Your task to perform on an android device: clear all cookies in the chrome app Image 0: 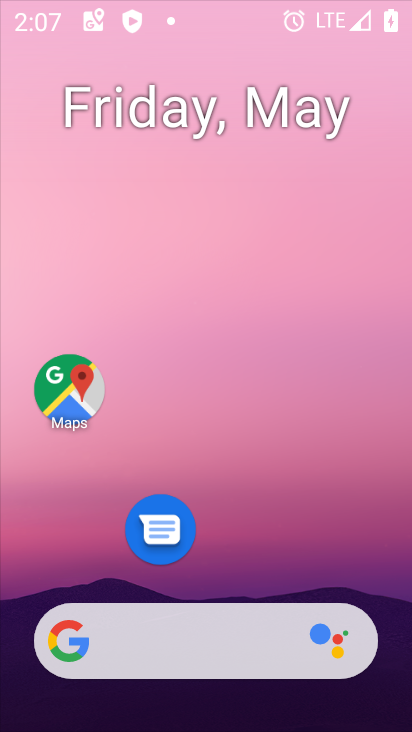
Step 0: drag from (392, 328) to (166, 726)
Your task to perform on an android device: clear all cookies in the chrome app Image 1: 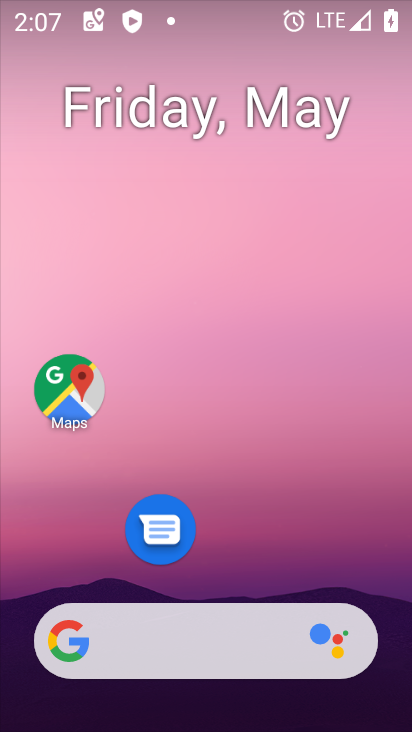
Step 1: drag from (193, 562) to (209, 186)
Your task to perform on an android device: clear all cookies in the chrome app Image 2: 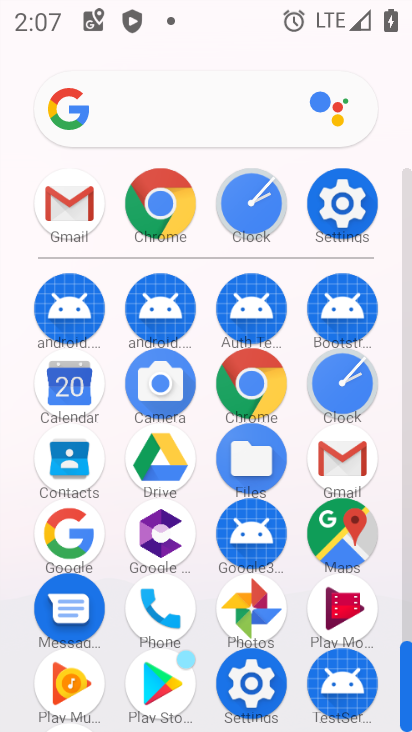
Step 2: drag from (217, 653) to (240, 6)
Your task to perform on an android device: clear all cookies in the chrome app Image 3: 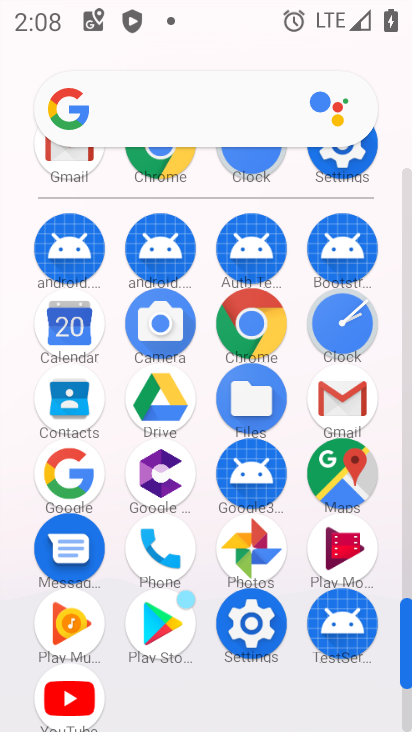
Step 3: click (252, 332)
Your task to perform on an android device: clear all cookies in the chrome app Image 4: 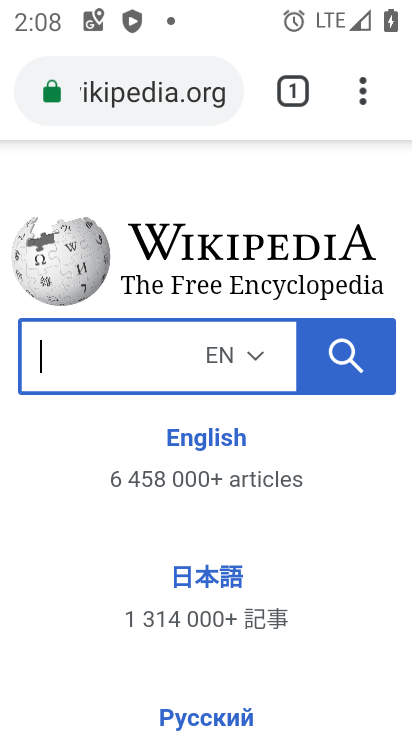
Step 4: click (361, 84)
Your task to perform on an android device: clear all cookies in the chrome app Image 5: 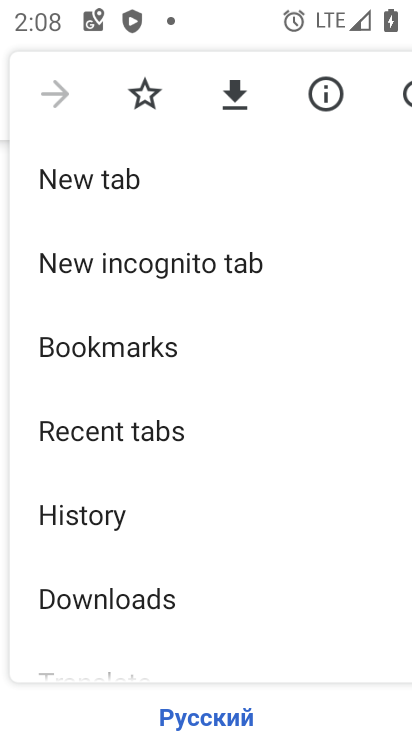
Step 5: drag from (121, 641) to (197, 152)
Your task to perform on an android device: clear all cookies in the chrome app Image 6: 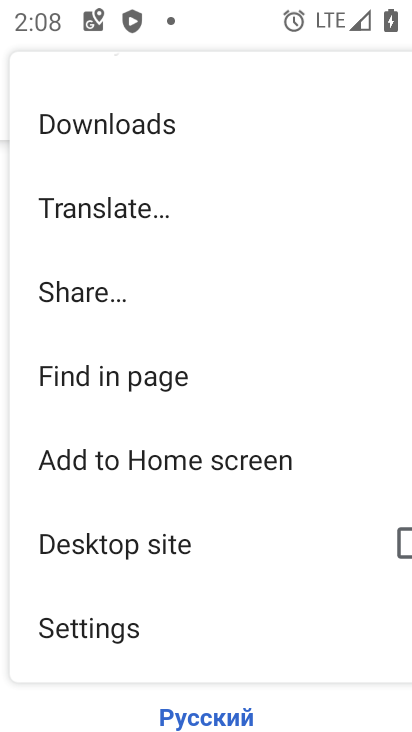
Step 6: drag from (165, 635) to (240, 300)
Your task to perform on an android device: clear all cookies in the chrome app Image 7: 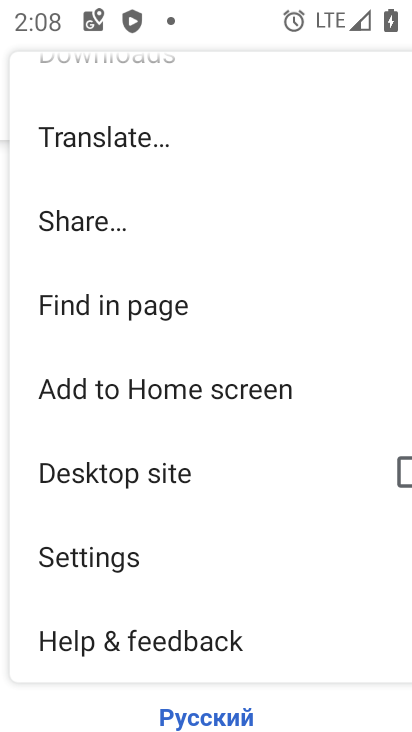
Step 7: drag from (183, 149) to (169, 608)
Your task to perform on an android device: clear all cookies in the chrome app Image 8: 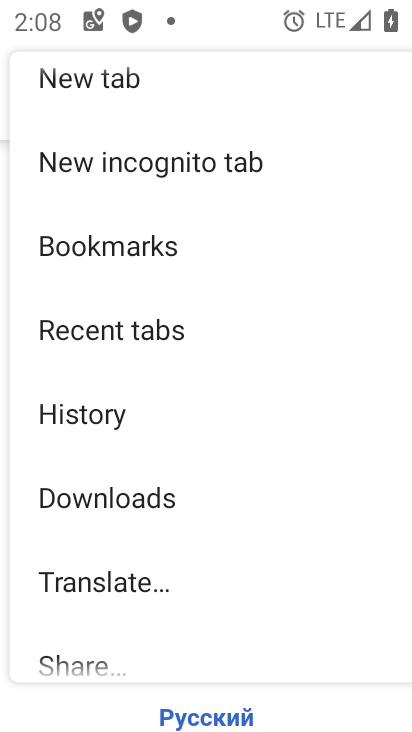
Step 8: drag from (180, 265) to (229, 666)
Your task to perform on an android device: clear all cookies in the chrome app Image 9: 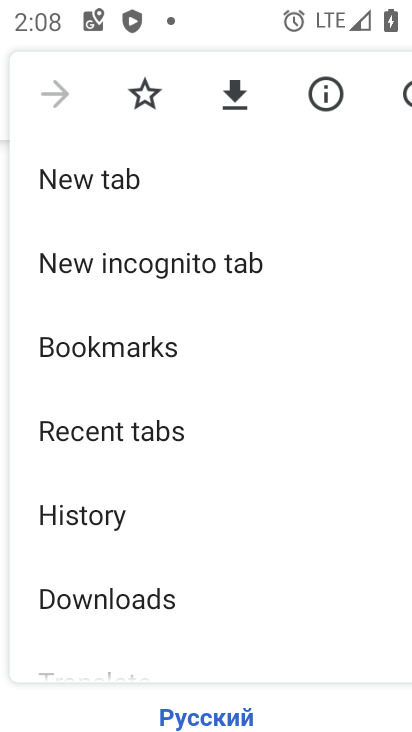
Step 9: drag from (137, 515) to (193, 209)
Your task to perform on an android device: clear all cookies in the chrome app Image 10: 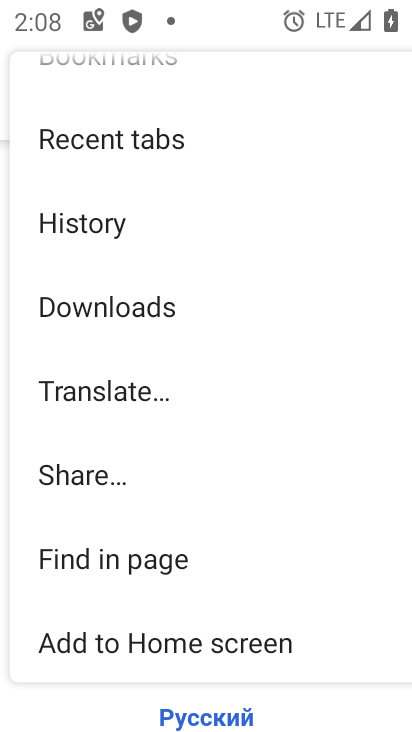
Step 10: click (111, 219)
Your task to perform on an android device: clear all cookies in the chrome app Image 11: 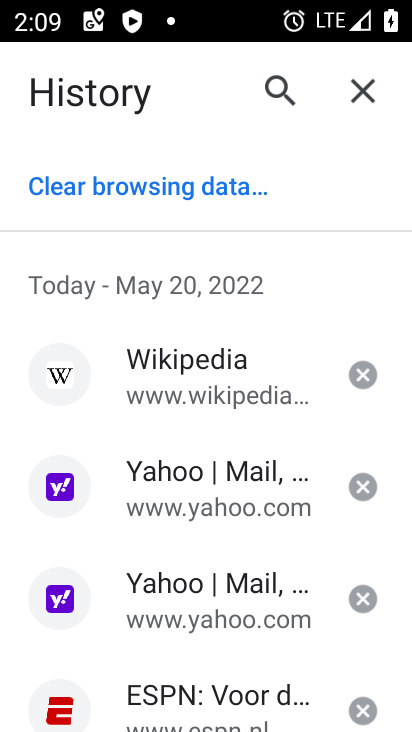
Step 11: click (100, 183)
Your task to perform on an android device: clear all cookies in the chrome app Image 12: 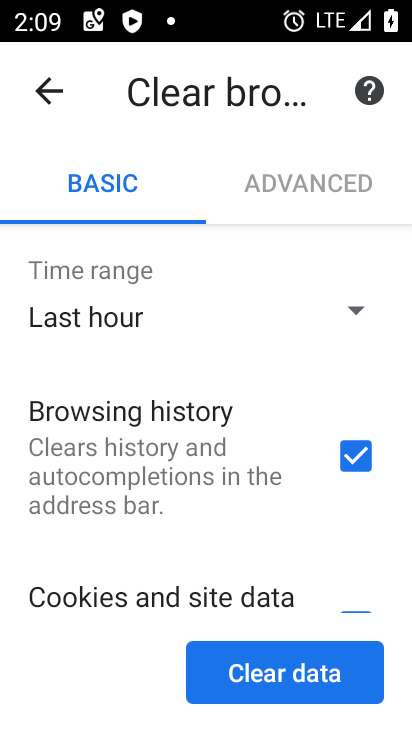
Step 12: drag from (275, 539) to (334, 198)
Your task to perform on an android device: clear all cookies in the chrome app Image 13: 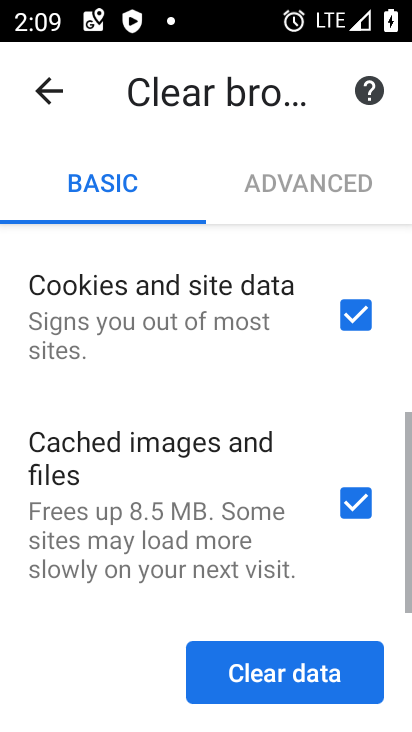
Step 13: drag from (265, 575) to (305, 233)
Your task to perform on an android device: clear all cookies in the chrome app Image 14: 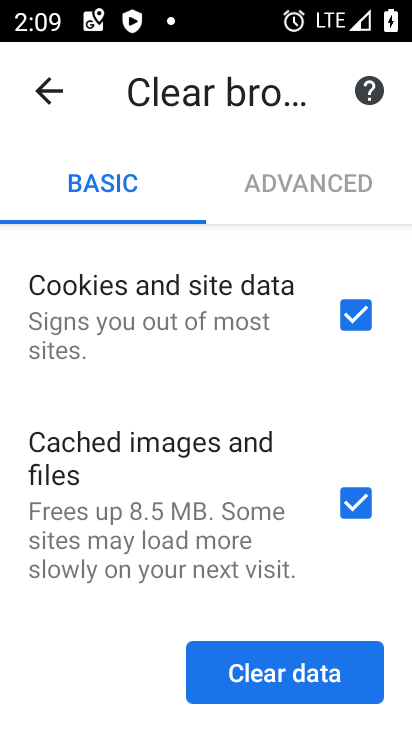
Step 14: drag from (202, 284) to (227, 630)
Your task to perform on an android device: clear all cookies in the chrome app Image 15: 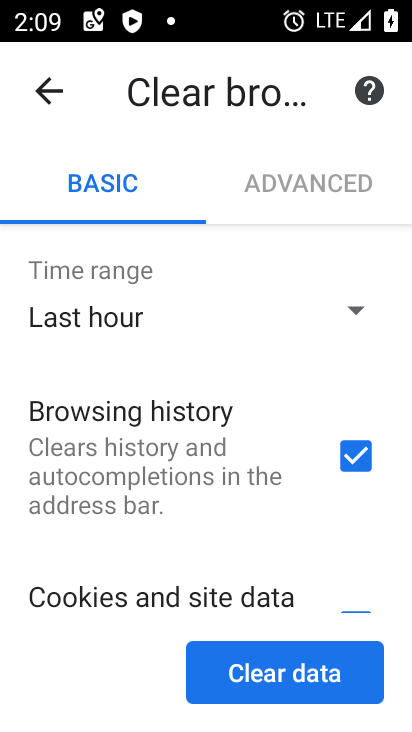
Step 15: drag from (236, 571) to (250, 326)
Your task to perform on an android device: clear all cookies in the chrome app Image 16: 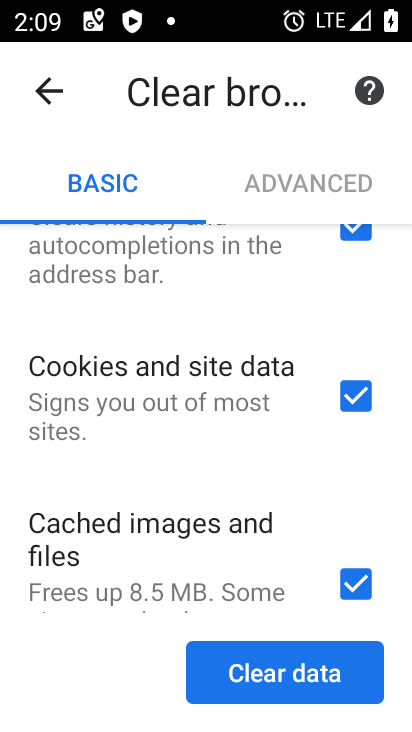
Step 16: drag from (258, 353) to (293, 731)
Your task to perform on an android device: clear all cookies in the chrome app Image 17: 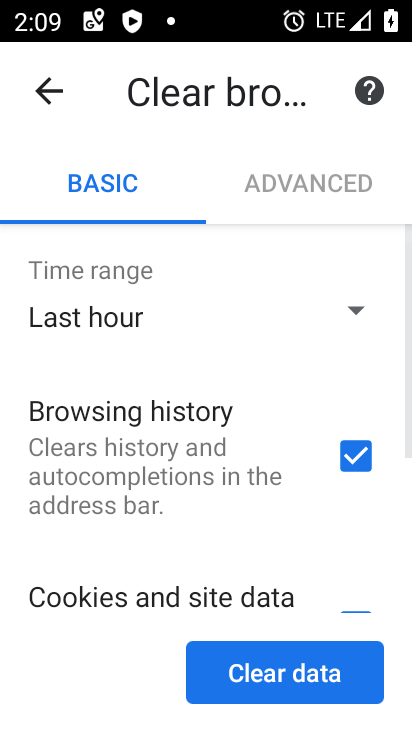
Step 17: click (247, 654)
Your task to perform on an android device: clear all cookies in the chrome app Image 18: 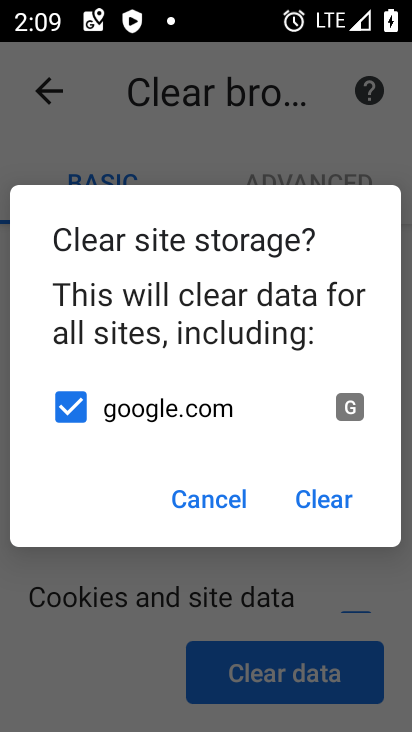
Step 18: click (333, 501)
Your task to perform on an android device: clear all cookies in the chrome app Image 19: 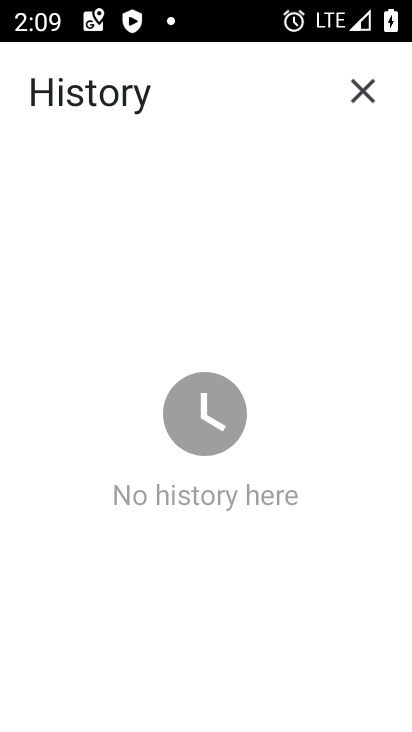
Step 19: task complete